Your task to perform on an android device: Open Android settings Image 0: 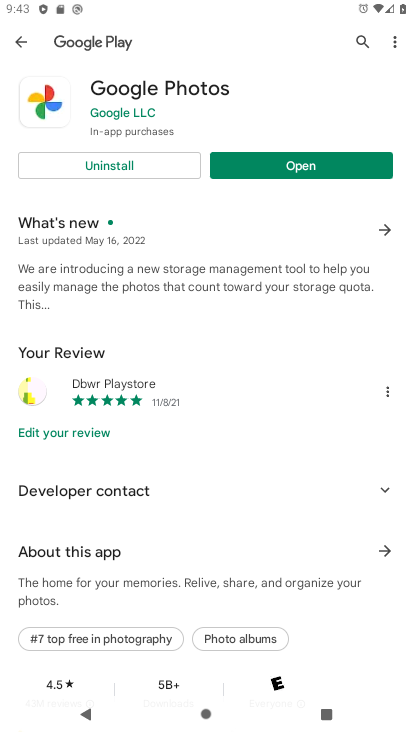
Step 0: press back button
Your task to perform on an android device: Open Android settings Image 1: 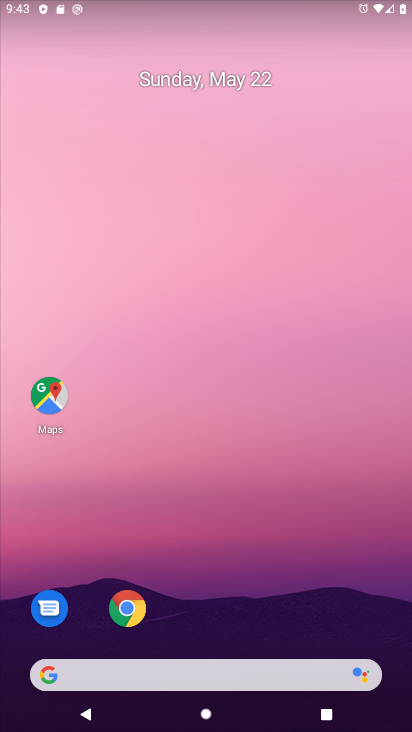
Step 1: drag from (223, 571) to (134, 4)
Your task to perform on an android device: Open Android settings Image 2: 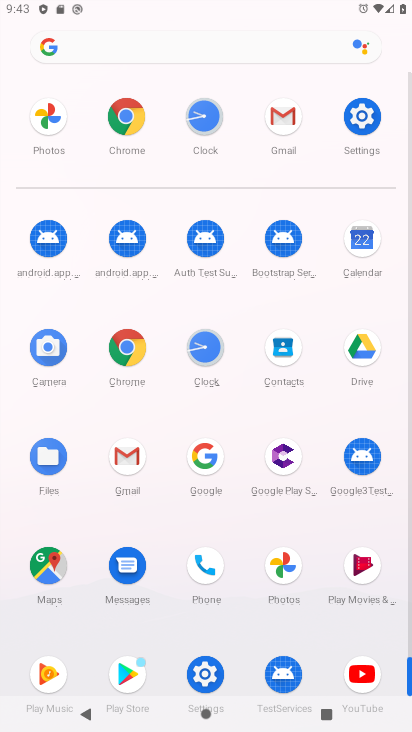
Step 2: click (201, 672)
Your task to perform on an android device: Open Android settings Image 3: 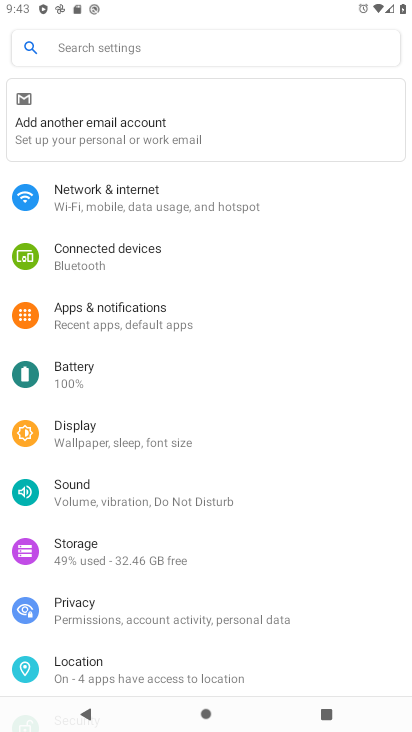
Step 3: task complete